Your task to perform on an android device: Look up the best rated bike seats on Target Image 0: 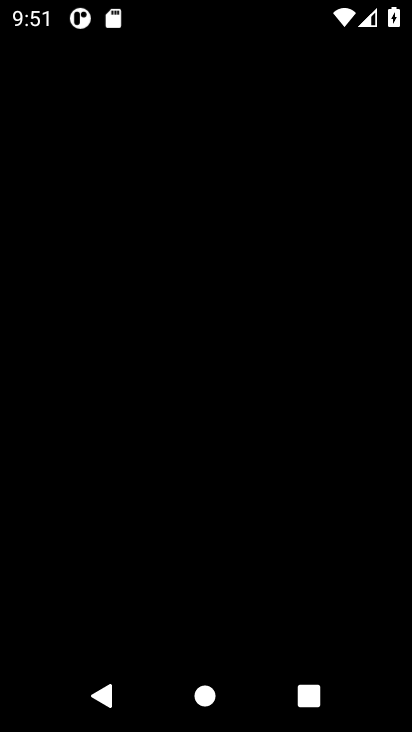
Step 0: task complete